Your task to perform on an android device: change the upload size in google photos Image 0: 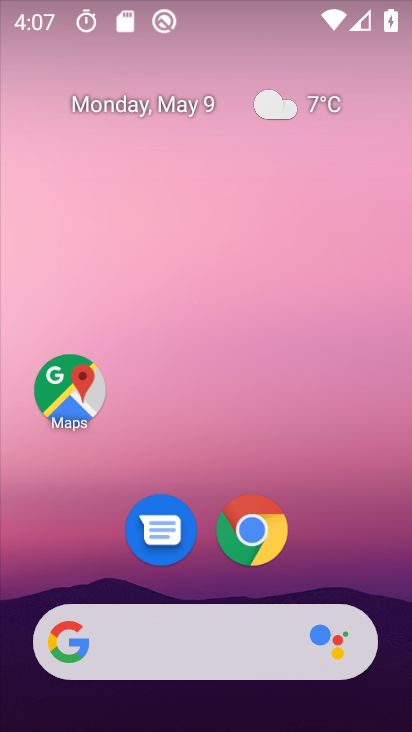
Step 0: drag from (178, 521) to (268, 62)
Your task to perform on an android device: change the upload size in google photos Image 1: 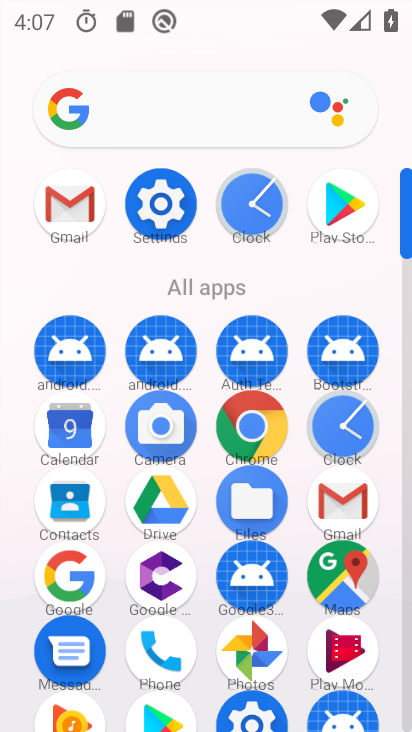
Step 1: click (255, 658)
Your task to perform on an android device: change the upload size in google photos Image 2: 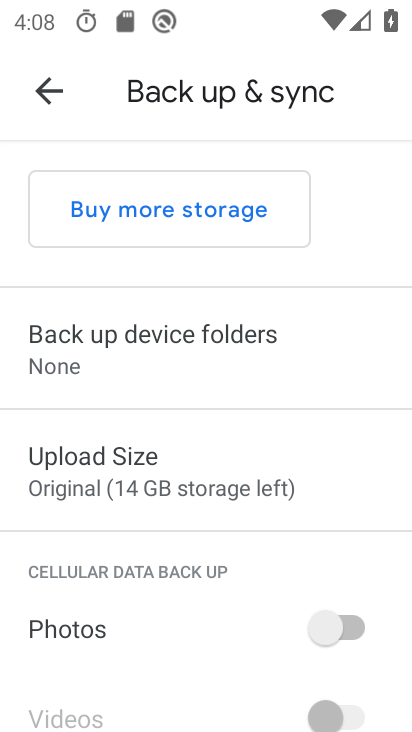
Step 2: click (120, 466)
Your task to perform on an android device: change the upload size in google photos Image 3: 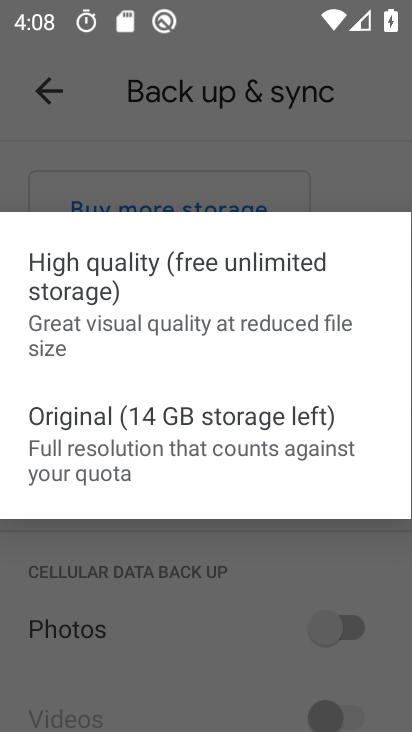
Step 3: click (113, 285)
Your task to perform on an android device: change the upload size in google photos Image 4: 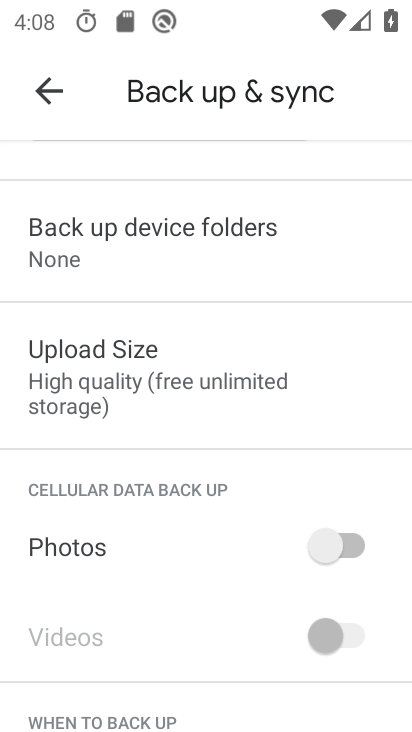
Step 4: task complete